Your task to perform on an android device: add a label to a message in the gmail app Image 0: 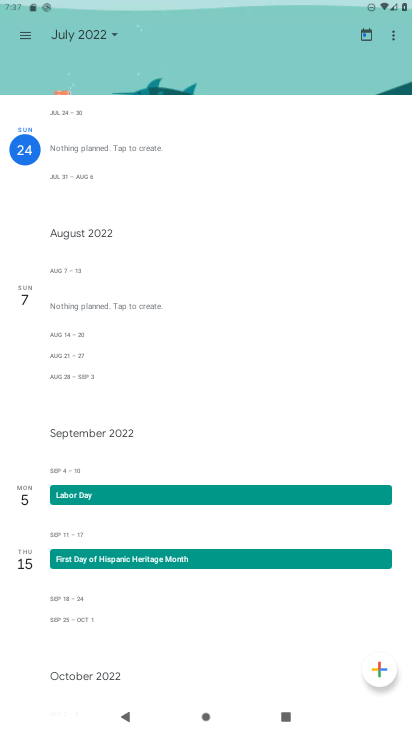
Step 0: press home button
Your task to perform on an android device: add a label to a message in the gmail app Image 1: 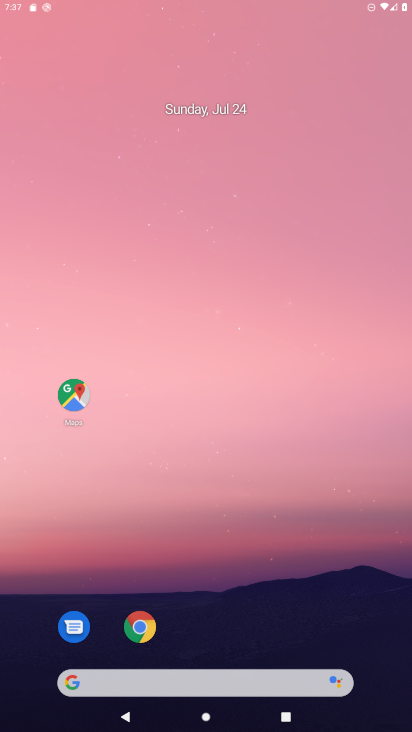
Step 1: drag from (352, 705) to (242, 6)
Your task to perform on an android device: add a label to a message in the gmail app Image 2: 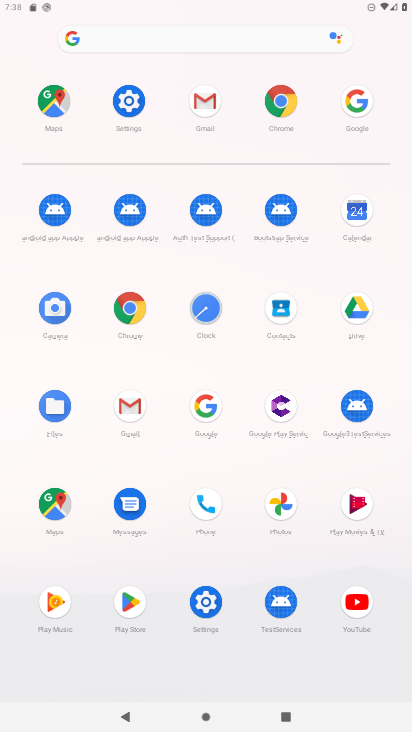
Step 2: click (112, 407)
Your task to perform on an android device: add a label to a message in the gmail app Image 3: 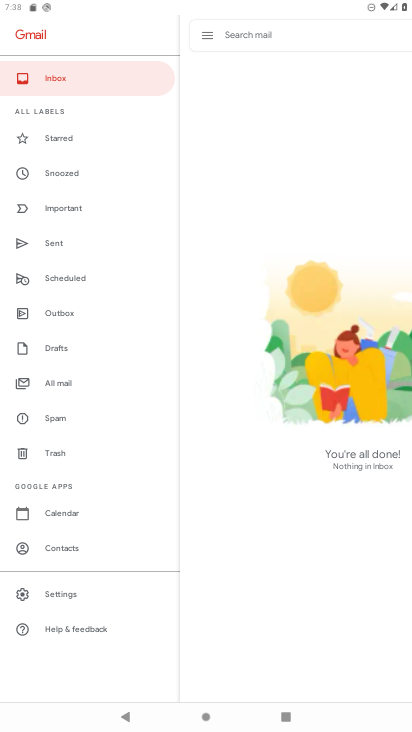
Step 3: task complete